Your task to perform on an android device: Open calendar and show me the third week of next month Image 0: 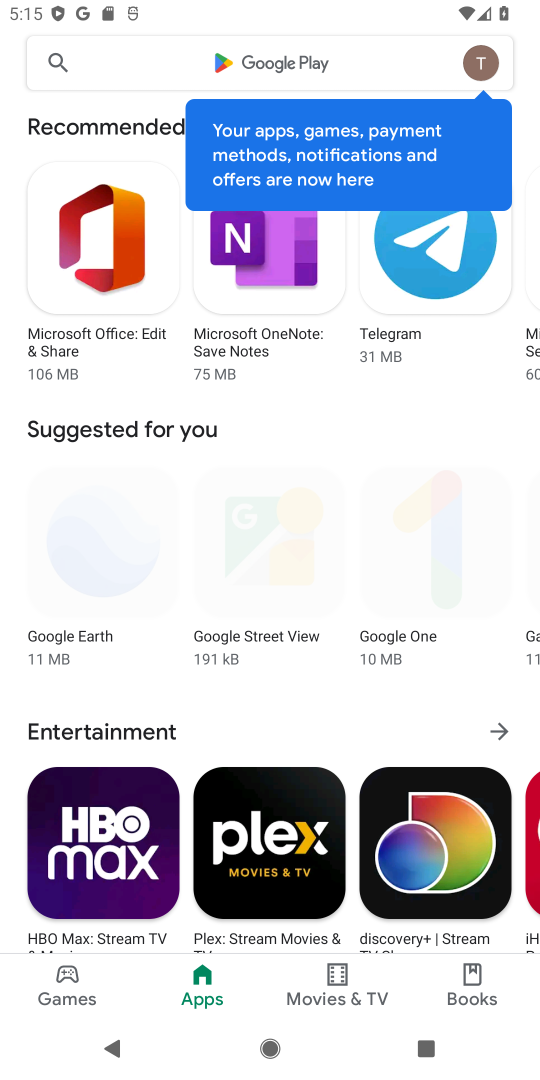
Step 0: press home button
Your task to perform on an android device: Open calendar and show me the third week of next month Image 1: 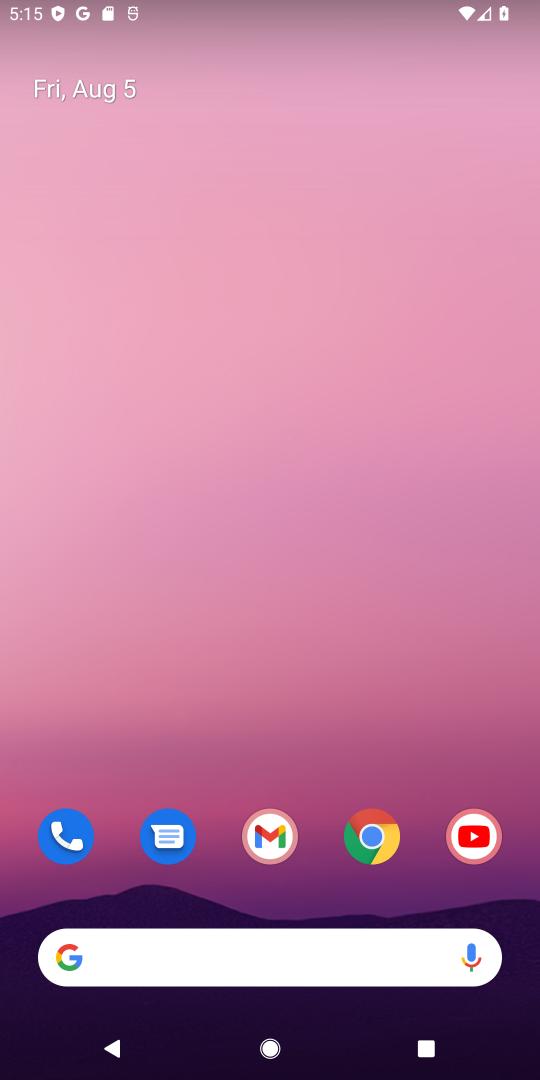
Step 1: drag from (312, 860) to (407, 125)
Your task to perform on an android device: Open calendar and show me the third week of next month Image 2: 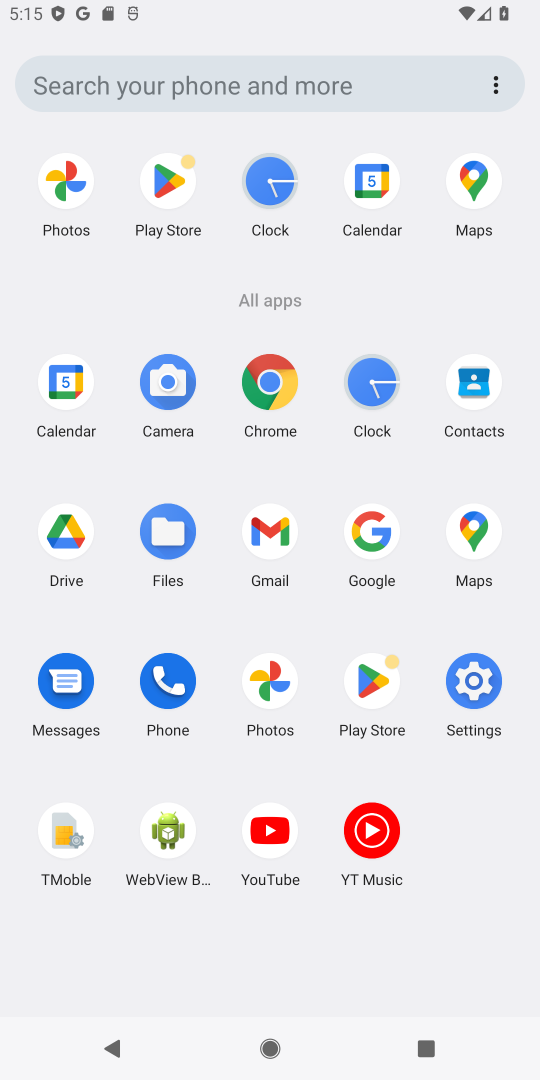
Step 2: click (64, 378)
Your task to perform on an android device: Open calendar and show me the third week of next month Image 3: 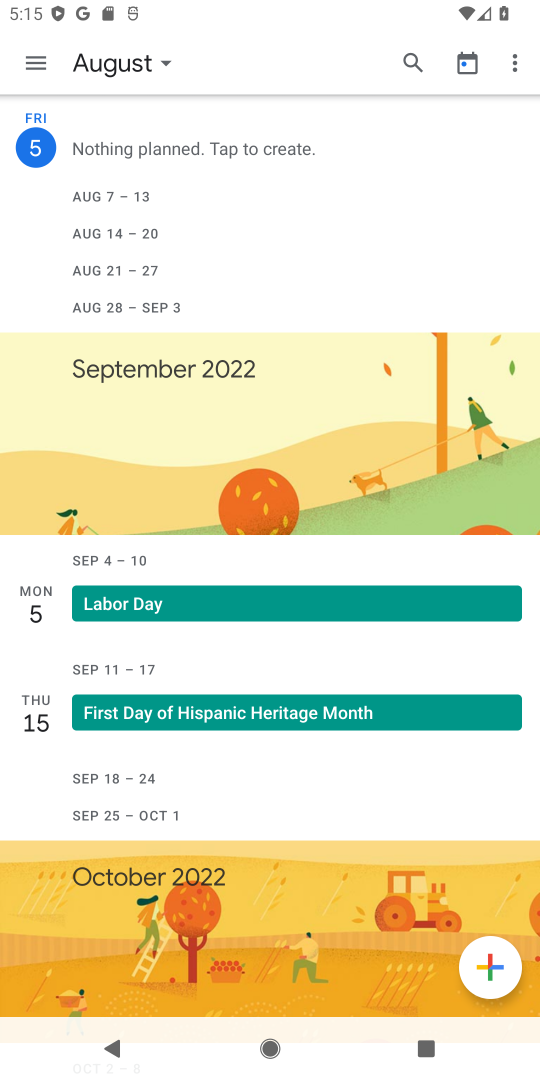
Step 3: click (157, 67)
Your task to perform on an android device: Open calendar and show me the third week of next month Image 4: 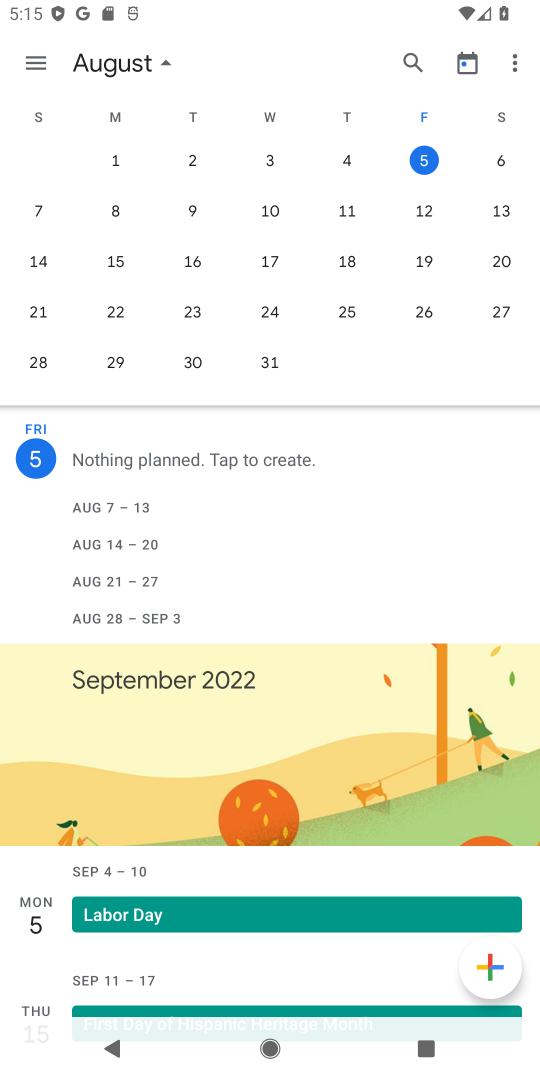
Step 4: drag from (459, 267) to (3, 267)
Your task to perform on an android device: Open calendar and show me the third week of next month Image 5: 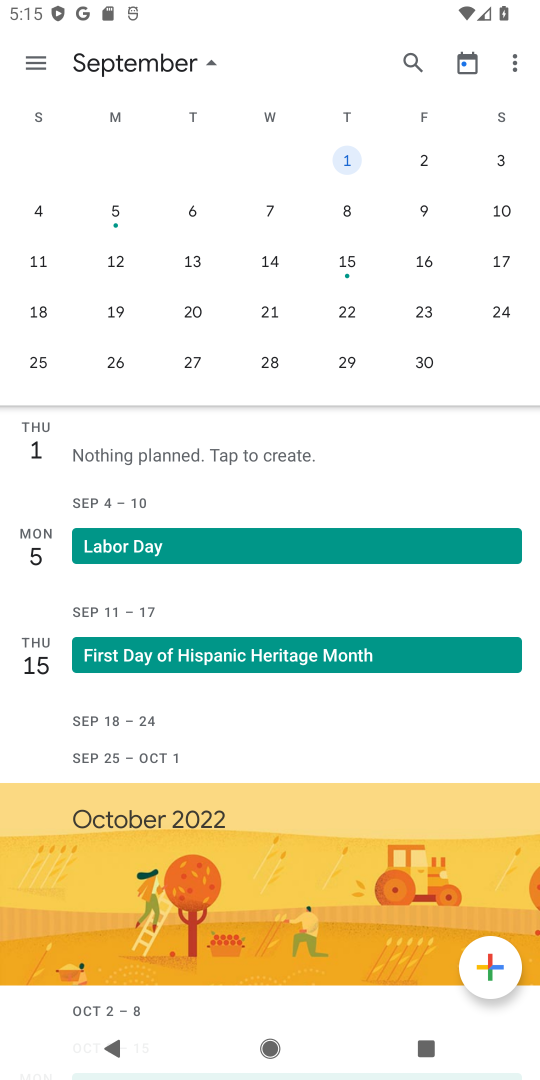
Step 5: click (21, 62)
Your task to perform on an android device: Open calendar and show me the third week of next month Image 6: 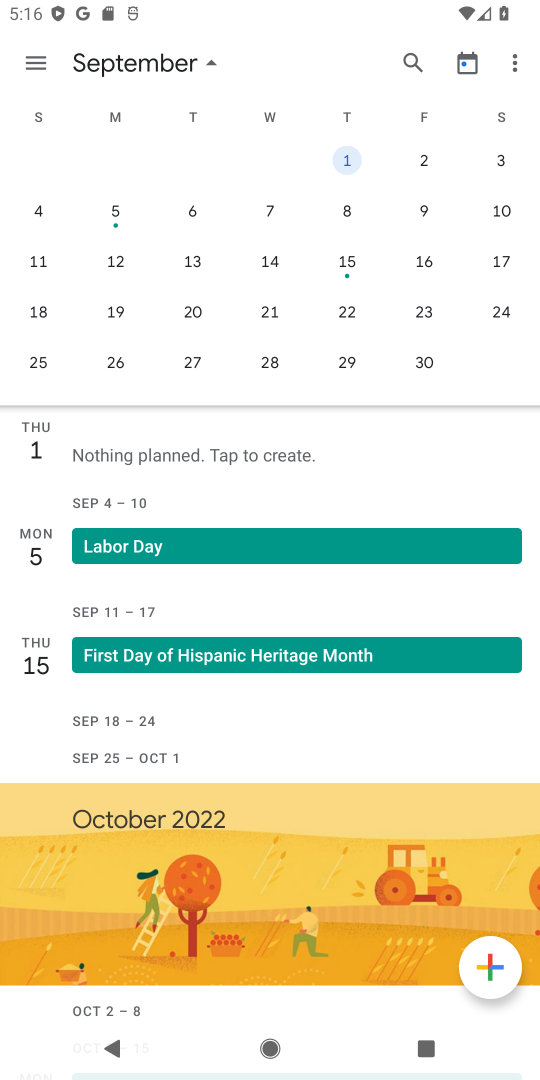
Step 6: click (36, 61)
Your task to perform on an android device: Open calendar and show me the third week of next month Image 7: 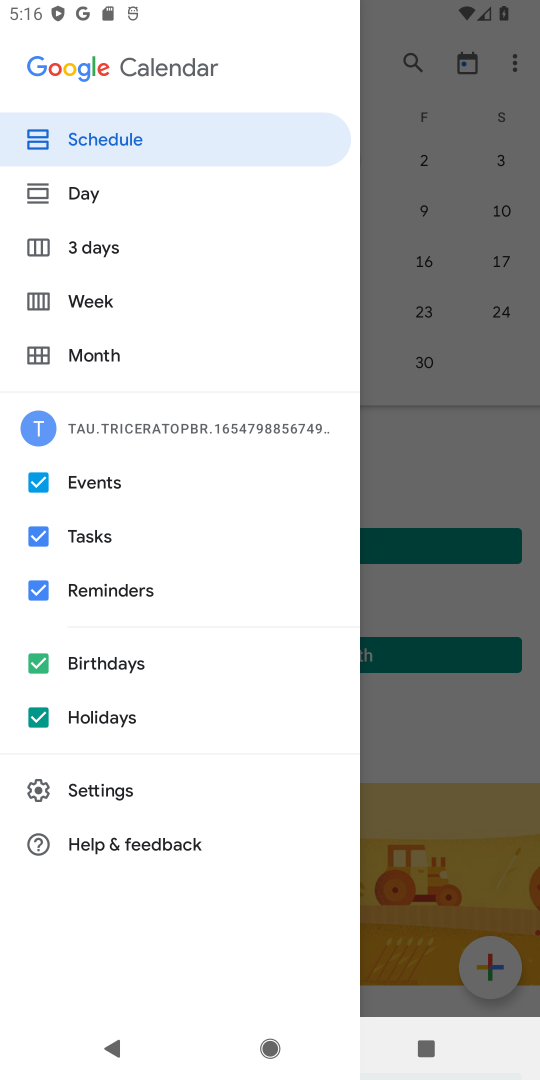
Step 7: click (109, 306)
Your task to perform on an android device: Open calendar and show me the third week of next month Image 8: 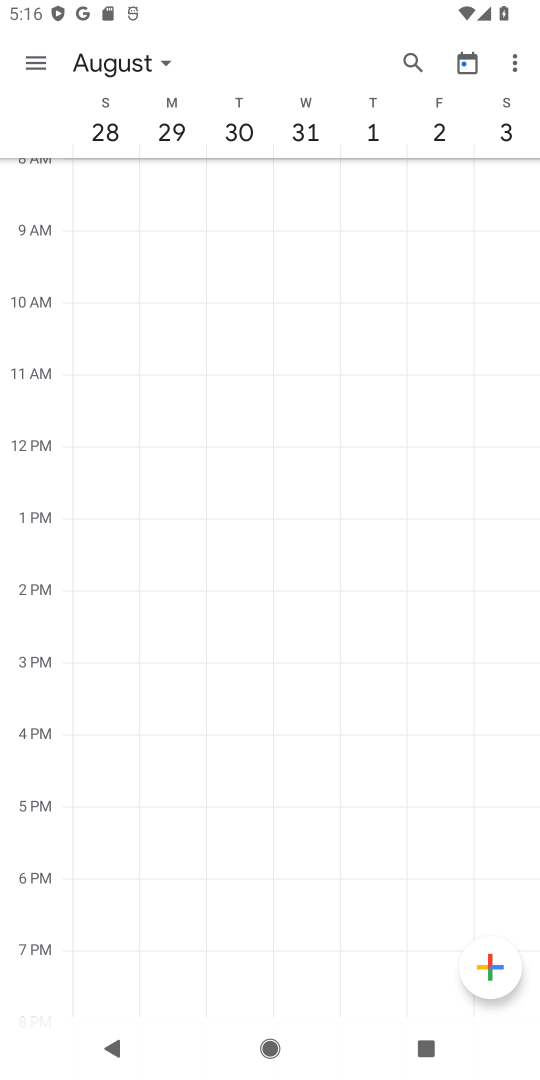
Step 8: click (164, 58)
Your task to perform on an android device: Open calendar and show me the third week of next month Image 9: 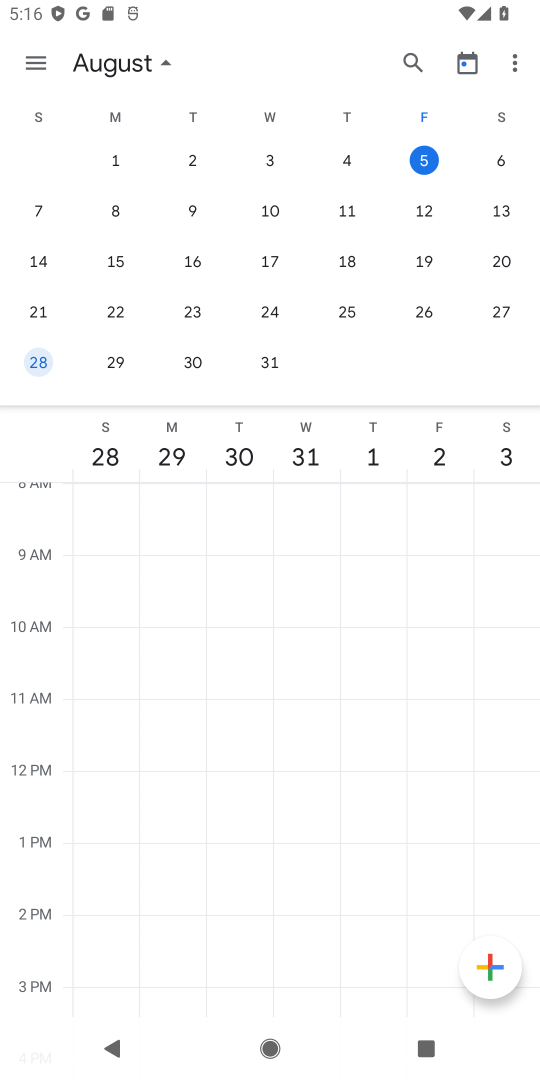
Step 9: drag from (470, 281) to (11, 282)
Your task to perform on an android device: Open calendar and show me the third week of next month Image 10: 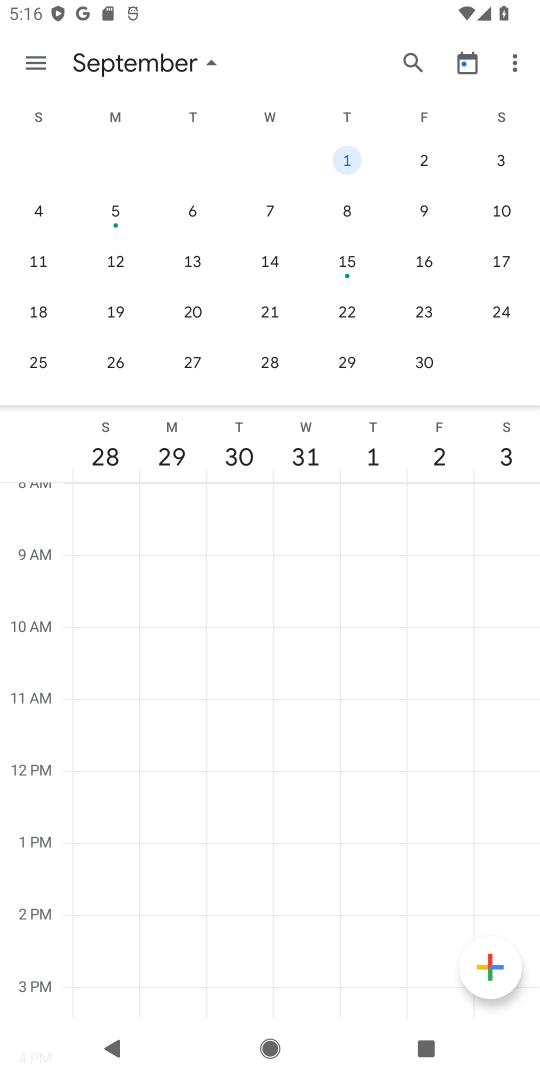
Step 10: click (44, 305)
Your task to perform on an android device: Open calendar and show me the third week of next month Image 11: 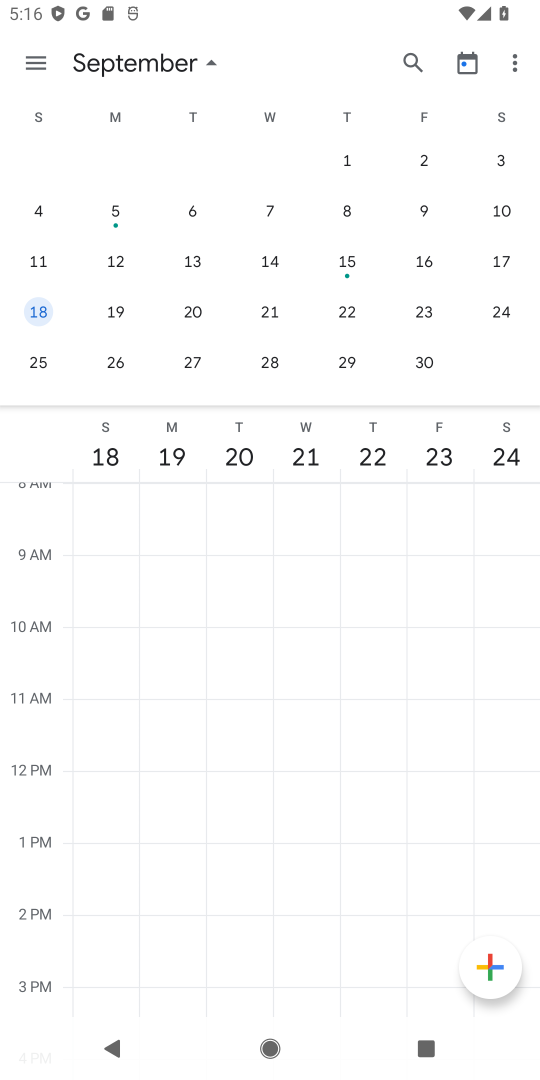
Step 11: click (196, 62)
Your task to perform on an android device: Open calendar and show me the third week of next month Image 12: 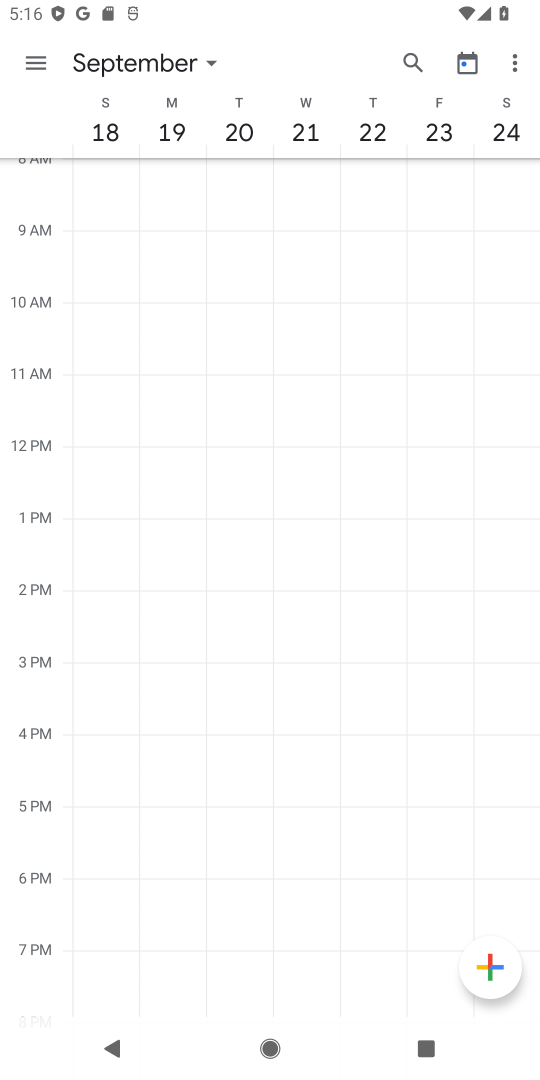
Step 12: task complete